Your task to perform on an android device: turn on airplane mode Image 0: 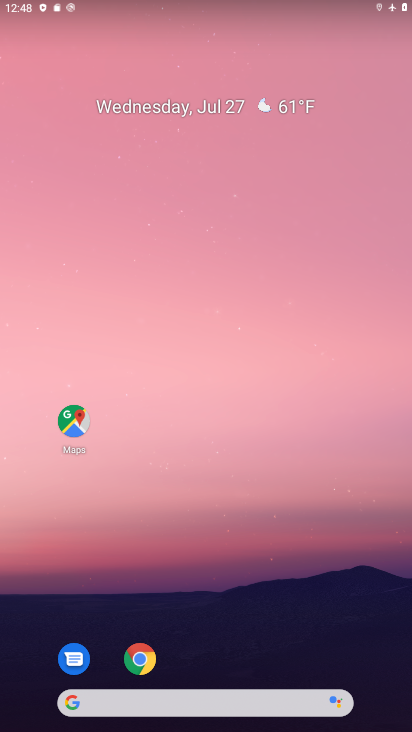
Step 0: drag from (207, 639) to (142, 52)
Your task to perform on an android device: turn on airplane mode Image 1: 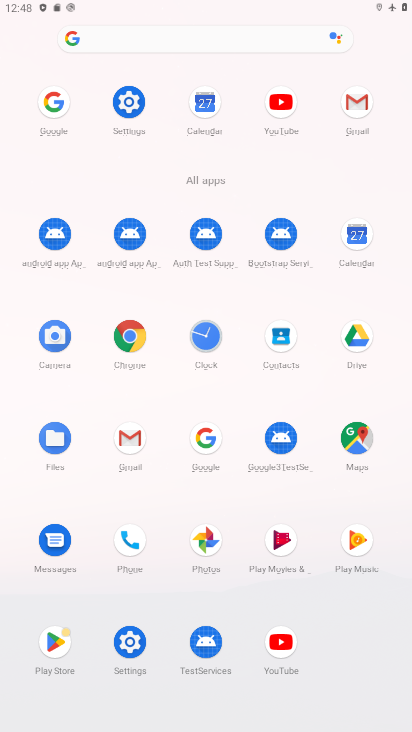
Step 1: click (133, 109)
Your task to perform on an android device: turn on airplane mode Image 2: 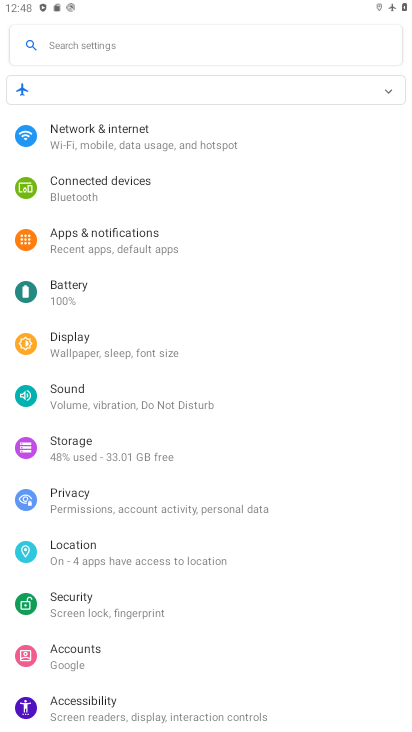
Step 2: click (149, 128)
Your task to perform on an android device: turn on airplane mode Image 3: 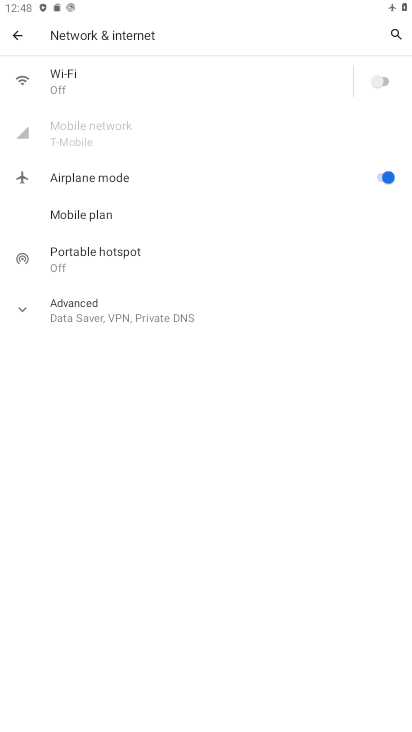
Step 3: task complete